Your task to perform on an android device: add a contact in the contacts app Image 0: 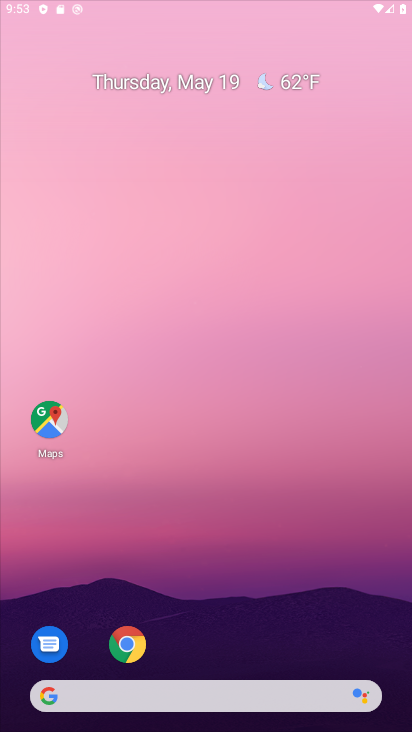
Step 0: click (200, 404)
Your task to perform on an android device: add a contact in the contacts app Image 1: 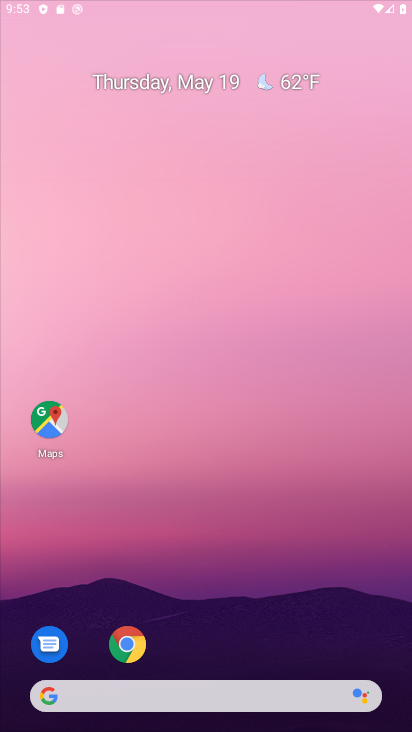
Step 1: drag from (255, 657) to (271, 14)
Your task to perform on an android device: add a contact in the contacts app Image 2: 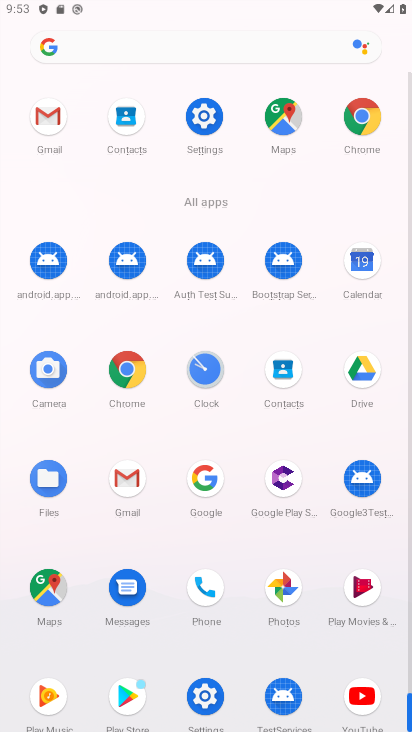
Step 2: click (286, 367)
Your task to perform on an android device: add a contact in the contacts app Image 3: 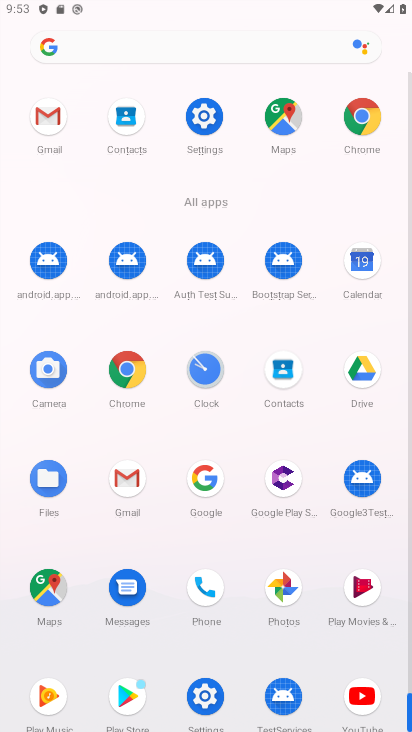
Step 3: click (287, 368)
Your task to perform on an android device: add a contact in the contacts app Image 4: 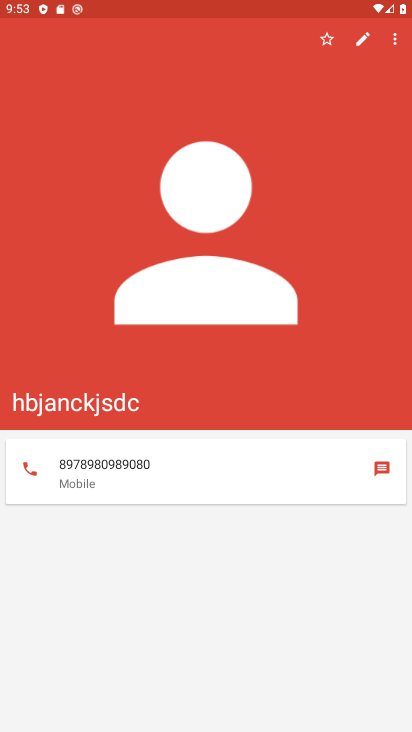
Step 4: press back button
Your task to perform on an android device: add a contact in the contacts app Image 5: 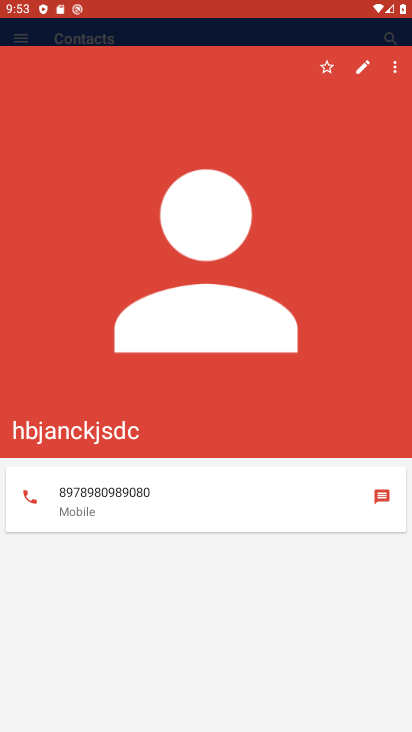
Step 5: press back button
Your task to perform on an android device: add a contact in the contacts app Image 6: 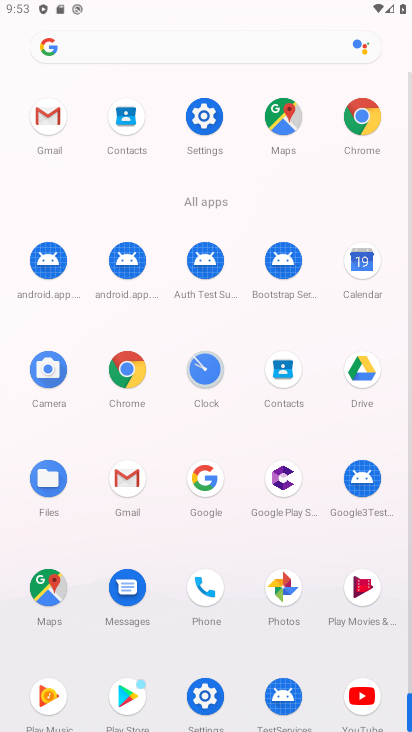
Step 6: click (281, 368)
Your task to perform on an android device: add a contact in the contacts app Image 7: 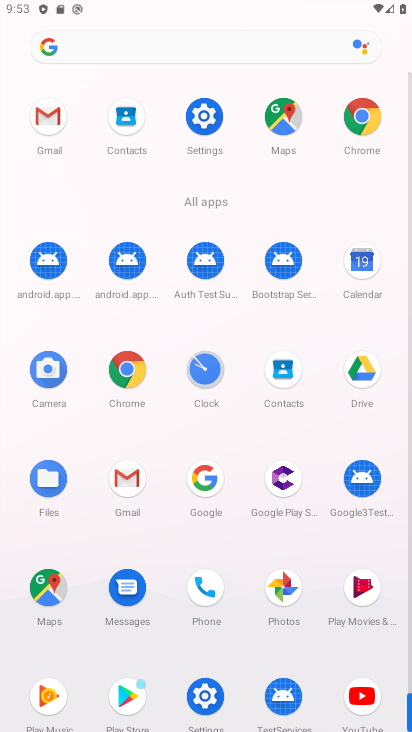
Step 7: click (282, 366)
Your task to perform on an android device: add a contact in the contacts app Image 8: 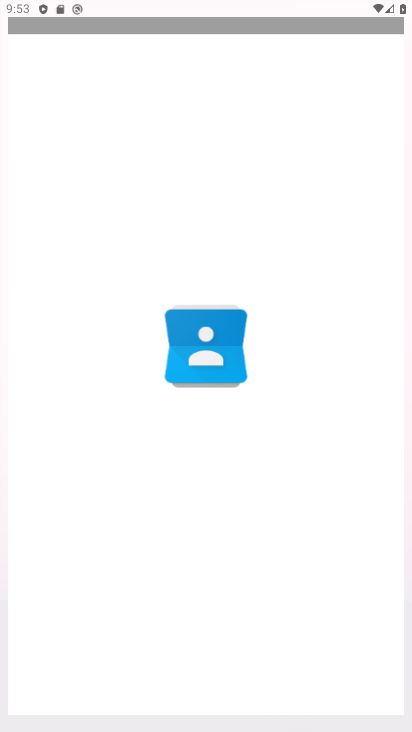
Step 8: click (309, 313)
Your task to perform on an android device: add a contact in the contacts app Image 9: 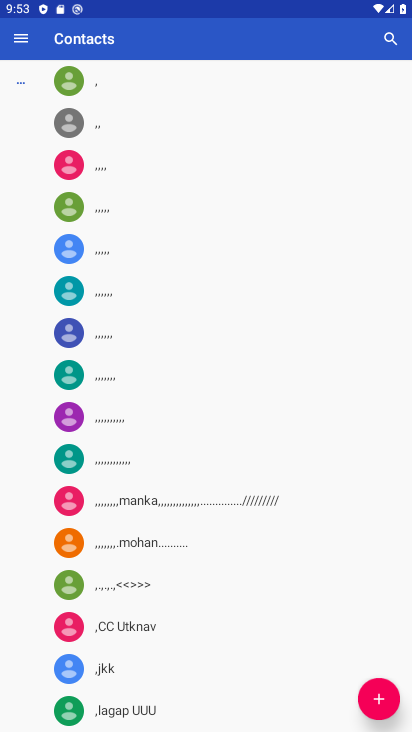
Step 9: click (367, 700)
Your task to perform on an android device: add a contact in the contacts app Image 10: 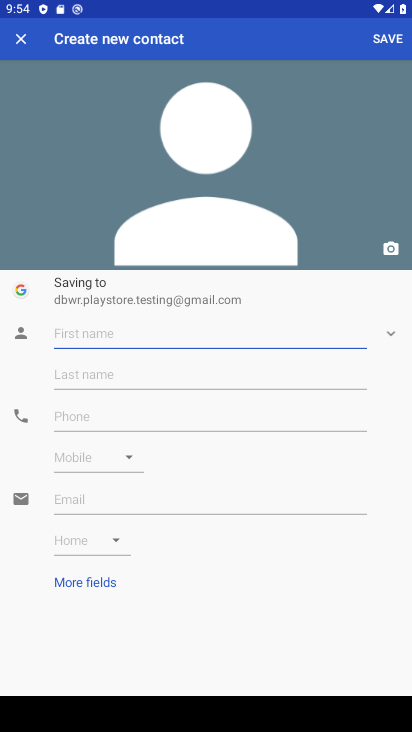
Step 10: type "hbkjckknvkjk"
Your task to perform on an android device: add a contact in the contacts app Image 11: 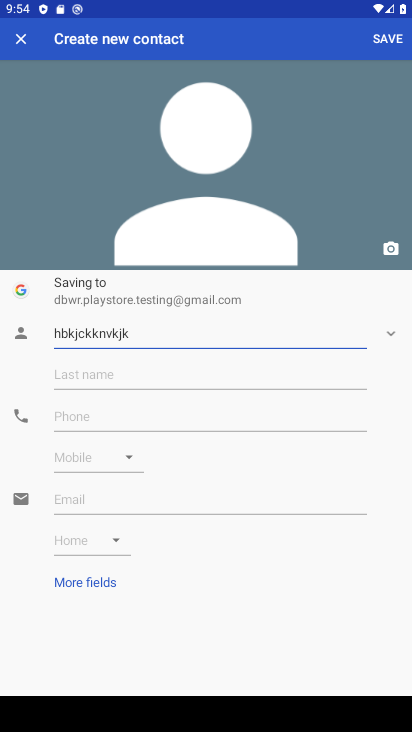
Step 11: click (61, 420)
Your task to perform on an android device: add a contact in the contacts app Image 12: 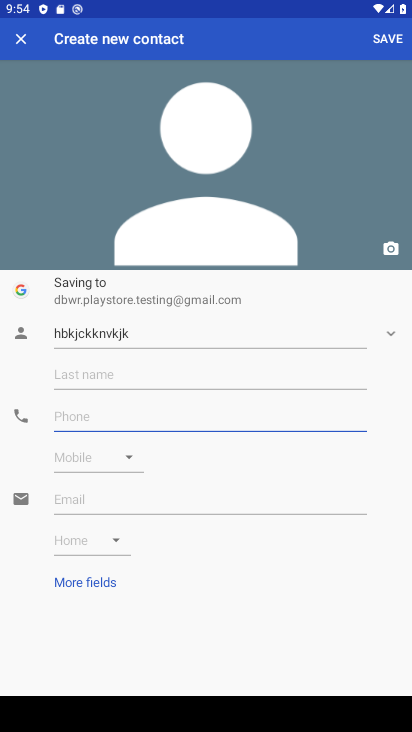
Step 12: type "67673647272"
Your task to perform on an android device: add a contact in the contacts app Image 13: 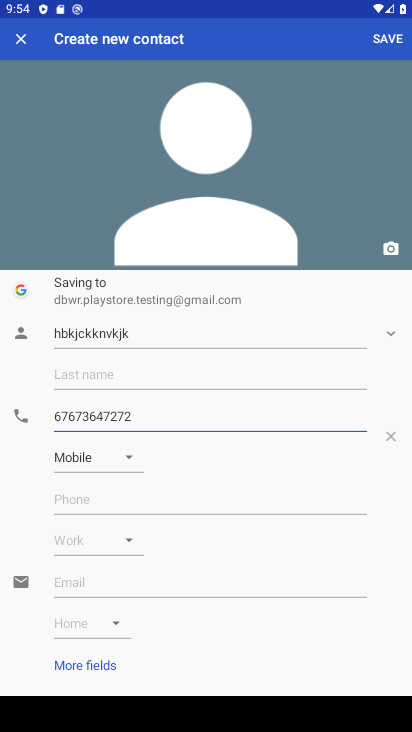
Step 13: click (404, 39)
Your task to perform on an android device: add a contact in the contacts app Image 14: 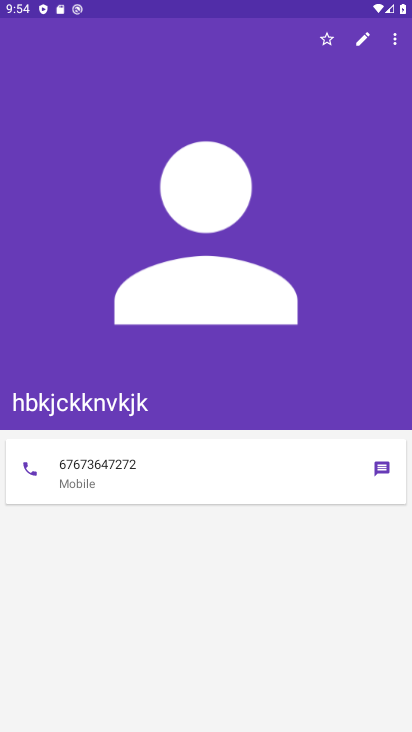
Step 14: task complete